Your task to perform on an android device: When is my next appointment? Image 0: 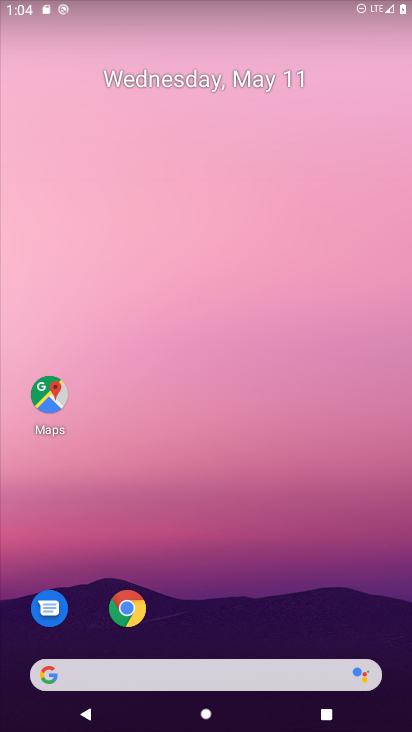
Step 0: drag from (257, 583) to (279, 53)
Your task to perform on an android device: When is my next appointment? Image 1: 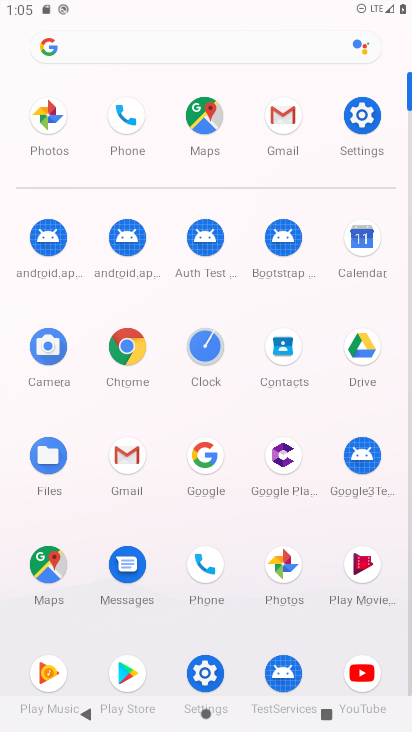
Step 1: click (367, 228)
Your task to perform on an android device: When is my next appointment? Image 2: 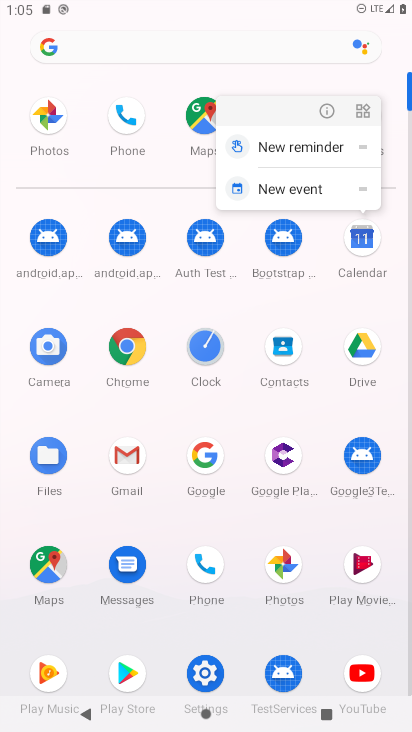
Step 2: click (361, 241)
Your task to perform on an android device: When is my next appointment? Image 3: 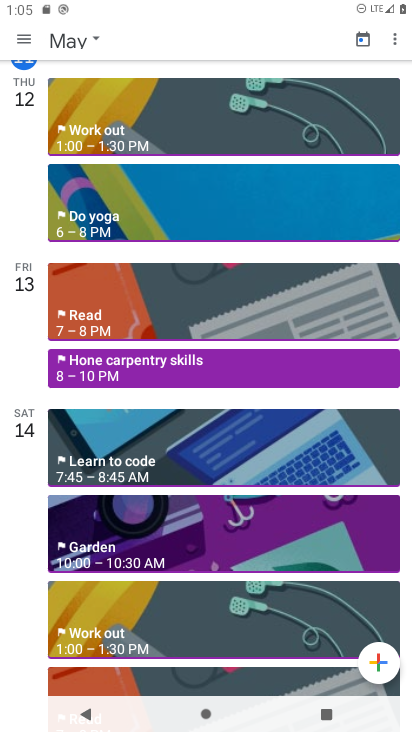
Step 3: task complete